Your task to perform on an android device: add a label to a message in the gmail app Image 0: 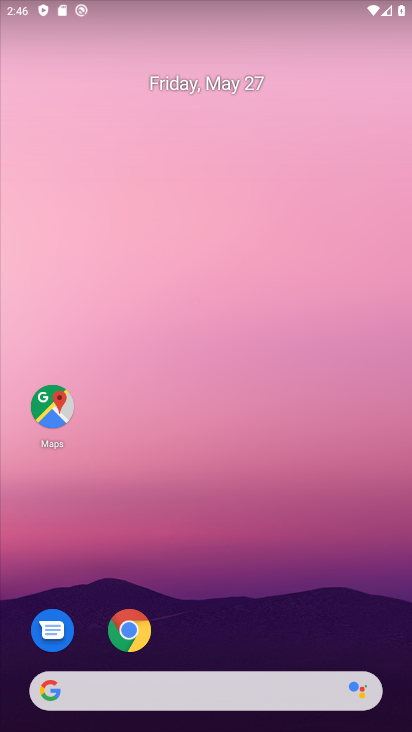
Step 0: drag from (226, 651) to (147, 95)
Your task to perform on an android device: add a label to a message in the gmail app Image 1: 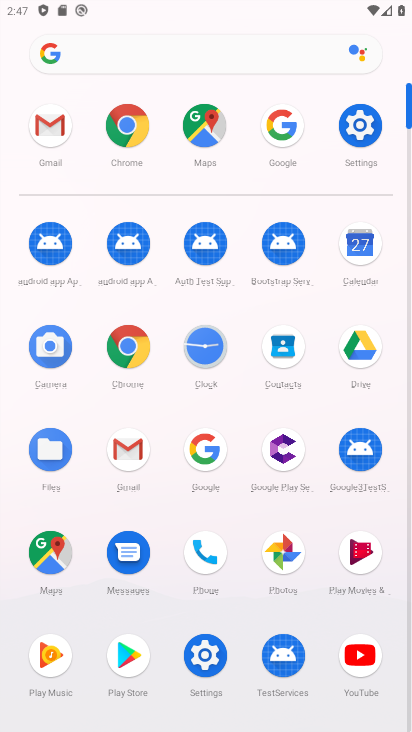
Step 1: click (140, 454)
Your task to perform on an android device: add a label to a message in the gmail app Image 2: 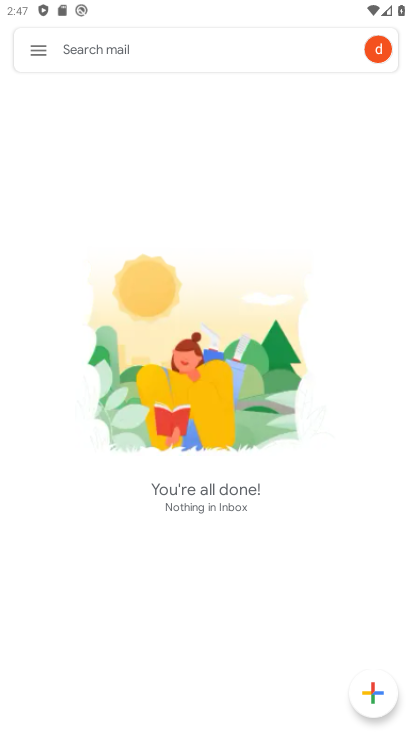
Step 2: click (45, 59)
Your task to perform on an android device: add a label to a message in the gmail app Image 3: 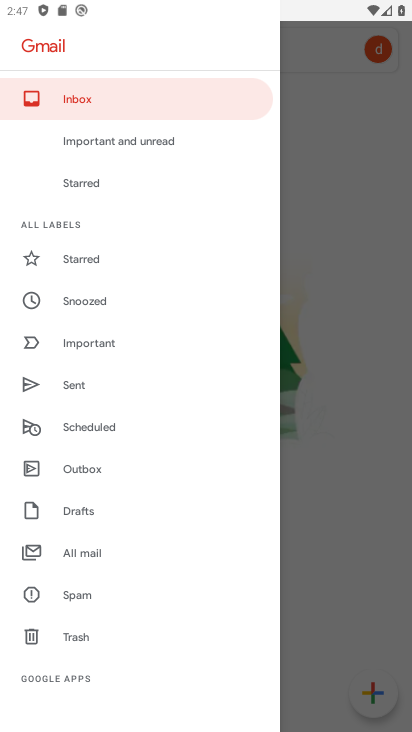
Step 3: click (90, 556)
Your task to perform on an android device: add a label to a message in the gmail app Image 4: 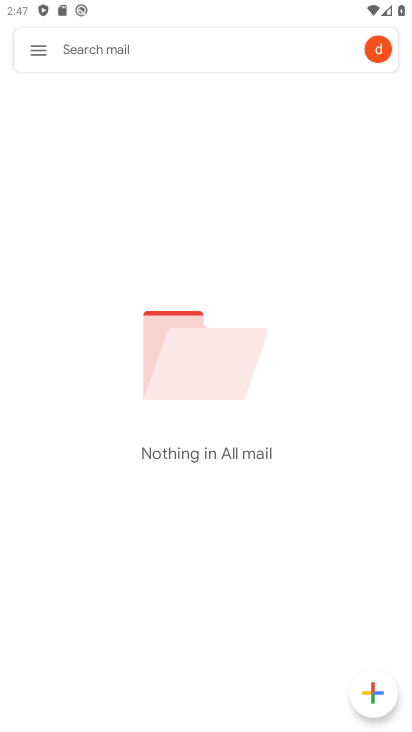
Step 4: task complete